Your task to perform on an android device: toggle sleep mode Image 0: 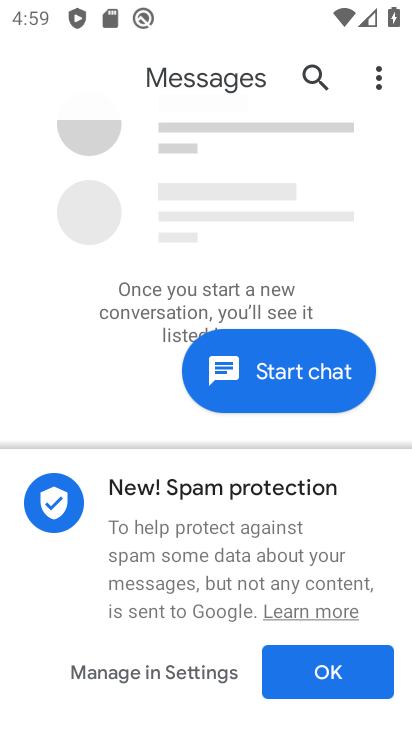
Step 0: press back button
Your task to perform on an android device: toggle sleep mode Image 1: 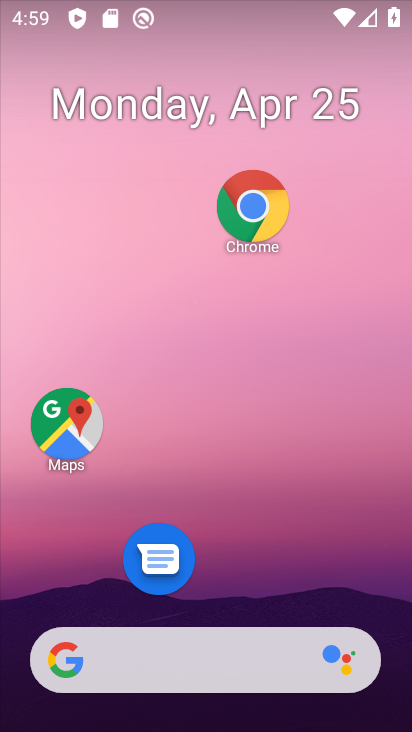
Step 1: drag from (288, 537) to (235, 40)
Your task to perform on an android device: toggle sleep mode Image 2: 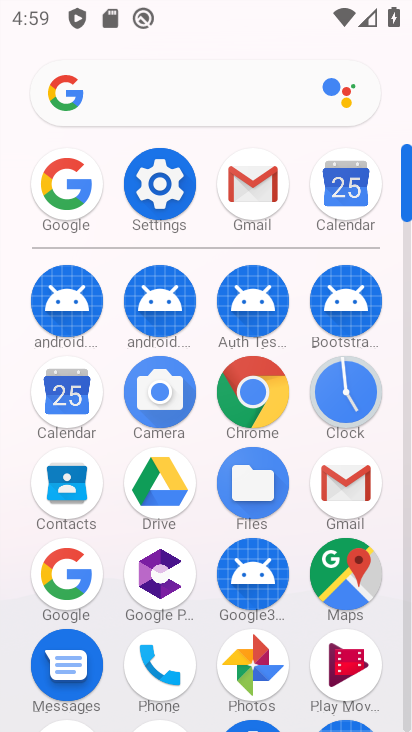
Step 2: click (160, 183)
Your task to perform on an android device: toggle sleep mode Image 3: 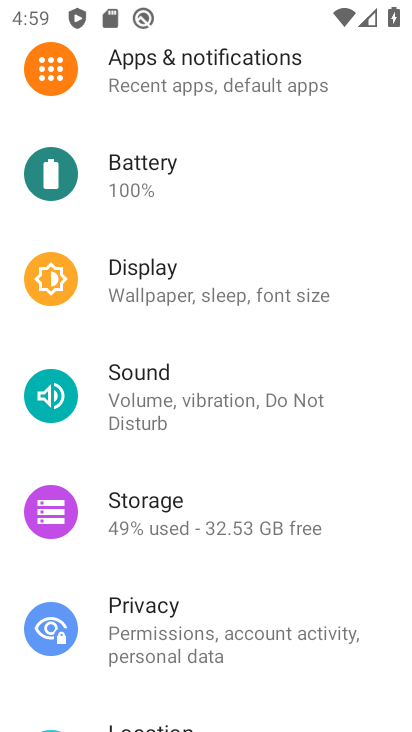
Step 3: click (251, 291)
Your task to perform on an android device: toggle sleep mode Image 4: 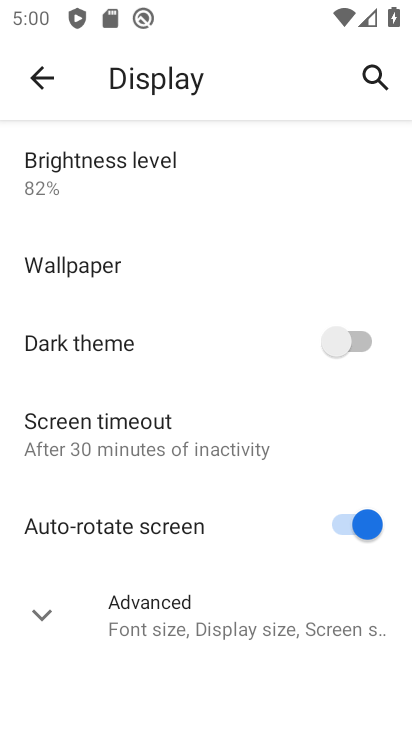
Step 4: click (168, 436)
Your task to perform on an android device: toggle sleep mode Image 5: 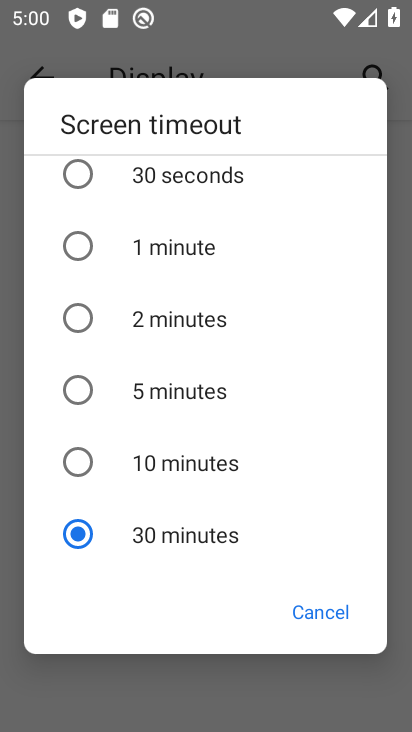
Step 5: click (298, 613)
Your task to perform on an android device: toggle sleep mode Image 6: 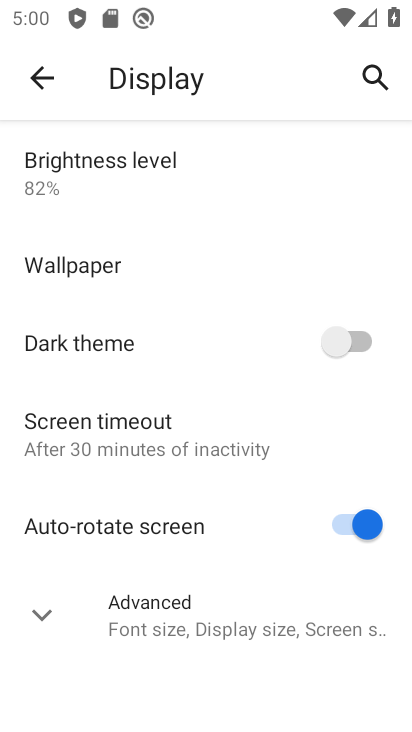
Step 6: task complete